Your task to perform on an android device: open app "Skype" (install if not already installed) and enter user name: "rumor@gmail.com" and password: "kinsman" Image 0: 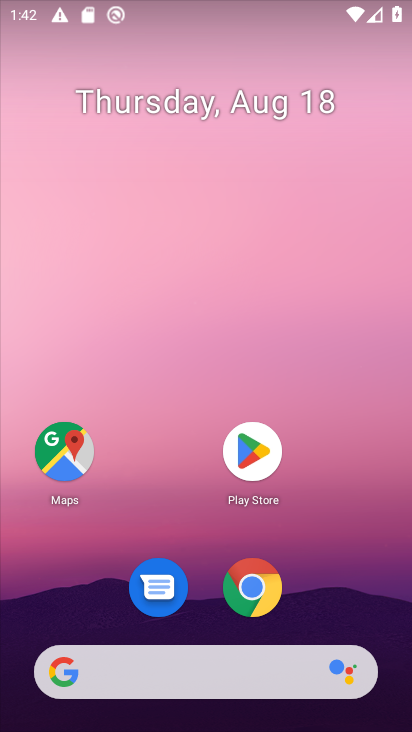
Step 0: click (239, 453)
Your task to perform on an android device: open app "Skype" (install if not already installed) and enter user name: "rumor@gmail.com" and password: "kinsman" Image 1: 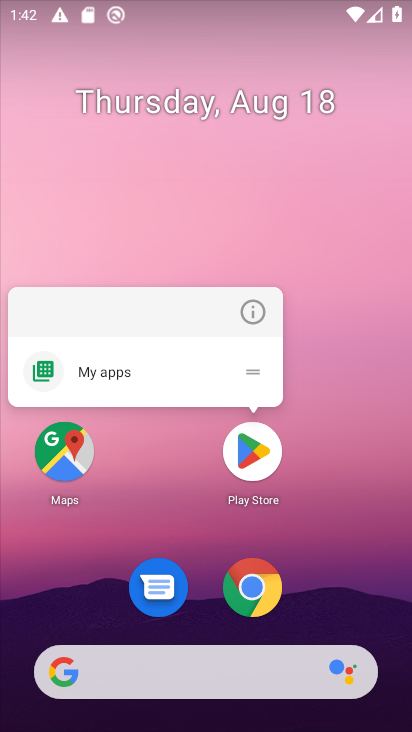
Step 1: click (247, 453)
Your task to perform on an android device: open app "Skype" (install if not already installed) and enter user name: "rumor@gmail.com" and password: "kinsman" Image 2: 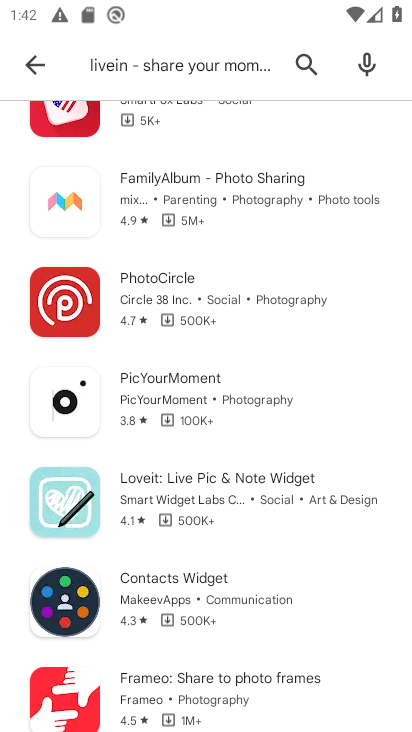
Step 2: click (299, 53)
Your task to perform on an android device: open app "Skype" (install if not already installed) and enter user name: "rumor@gmail.com" and password: "kinsman" Image 3: 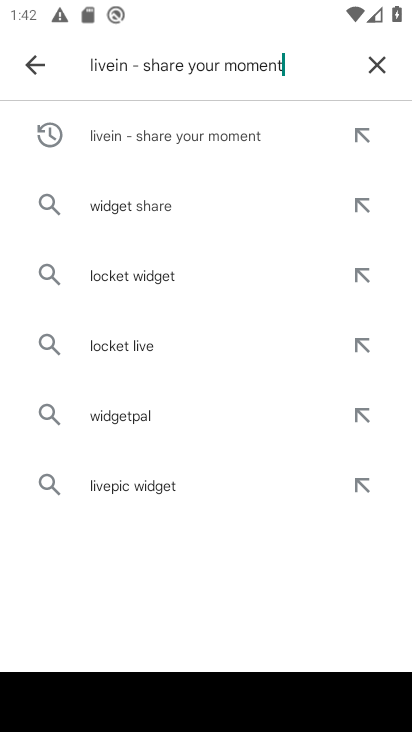
Step 3: click (379, 48)
Your task to perform on an android device: open app "Skype" (install if not already installed) and enter user name: "rumor@gmail.com" and password: "kinsman" Image 4: 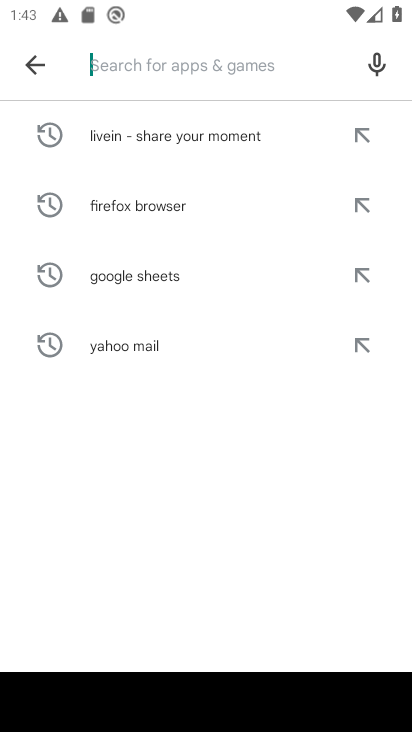
Step 4: type "Skype"
Your task to perform on an android device: open app "Skype" (install if not already installed) and enter user name: "rumor@gmail.com" and password: "kinsman" Image 5: 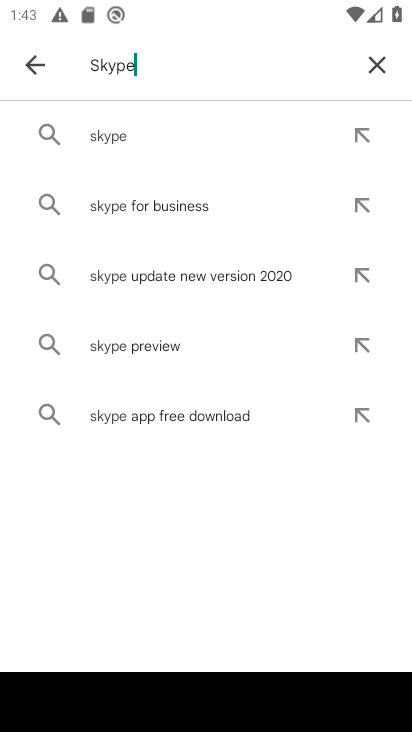
Step 5: click (108, 137)
Your task to perform on an android device: open app "Skype" (install if not already installed) and enter user name: "rumor@gmail.com" and password: "kinsman" Image 6: 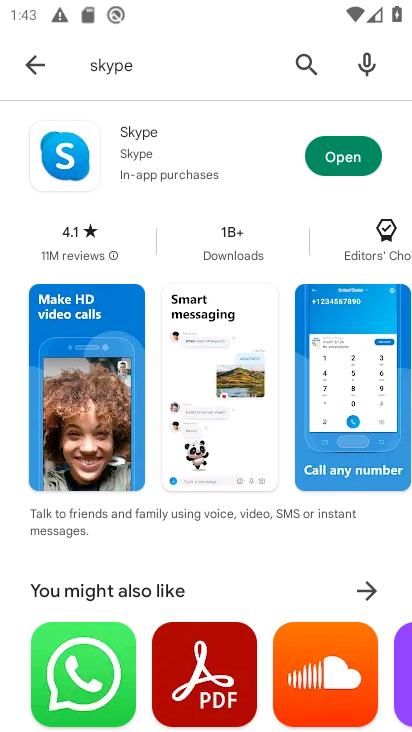
Step 6: click (357, 157)
Your task to perform on an android device: open app "Skype" (install if not already installed) and enter user name: "rumor@gmail.com" and password: "kinsman" Image 7: 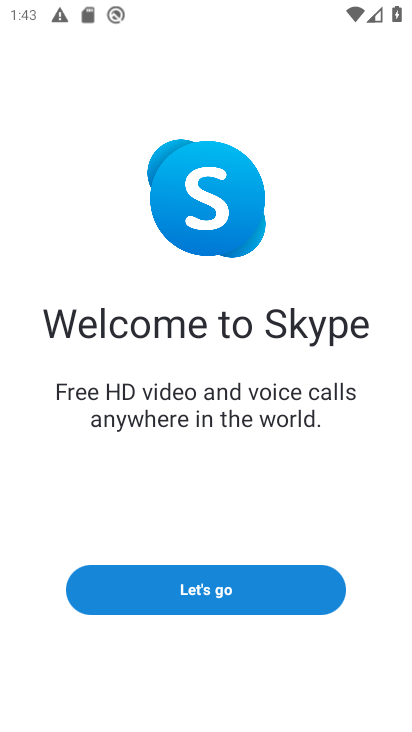
Step 7: click (228, 594)
Your task to perform on an android device: open app "Skype" (install if not already installed) and enter user name: "rumor@gmail.com" and password: "kinsman" Image 8: 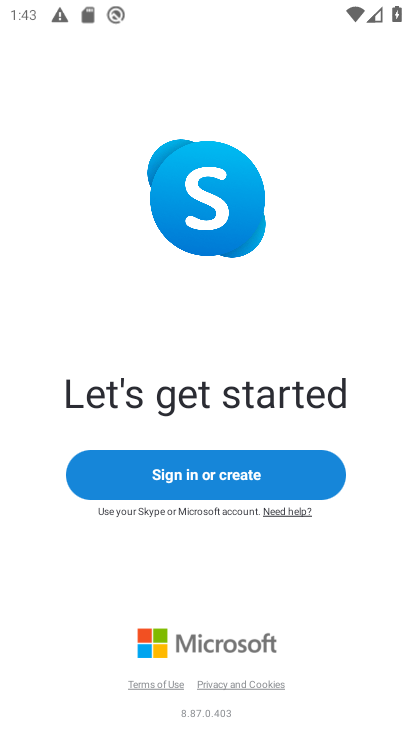
Step 8: click (183, 476)
Your task to perform on an android device: open app "Skype" (install if not already installed) and enter user name: "rumor@gmail.com" and password: "kinsman" Image 9: 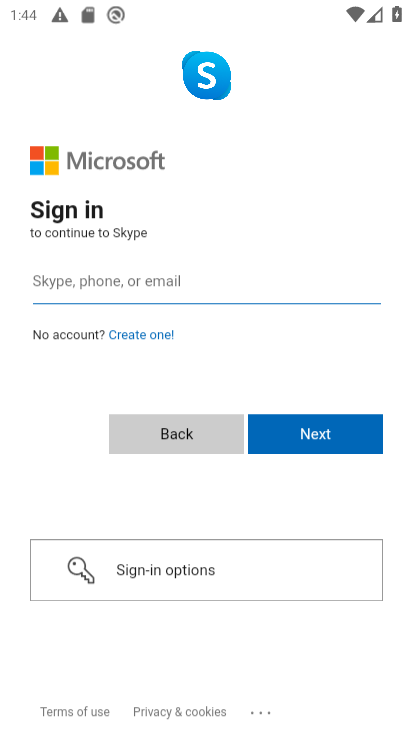
Step 9: type "rumor@gmail.com"
Your task to perform on an android device: open app "Skype" (install if not already installed) and enter user name: "rumor@gmail.com" and password: "kinsman" Image 10: 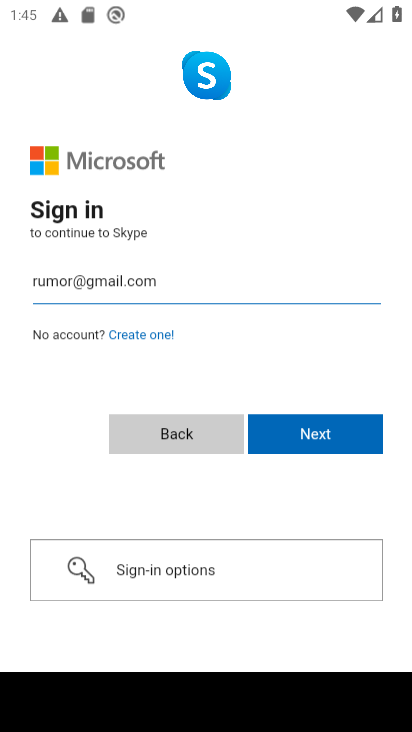
Step 10: task complete